Your task to perform on an android device: Open accessibility settings Image 0: 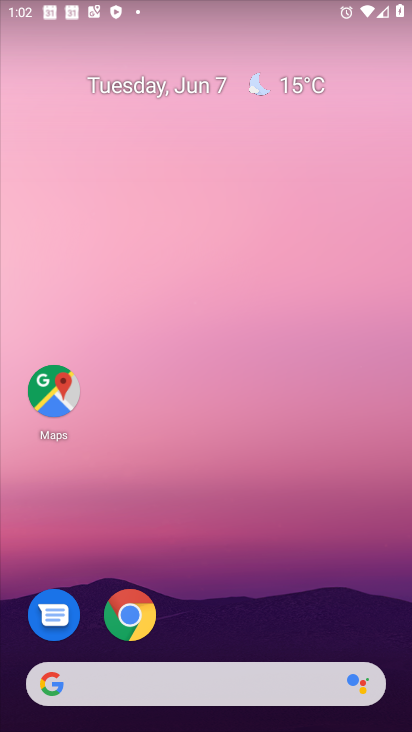
Step 0: drag from (233, 627) to (178, 186)
Your task to perform on an android device: Open accessibility settings Image 1: 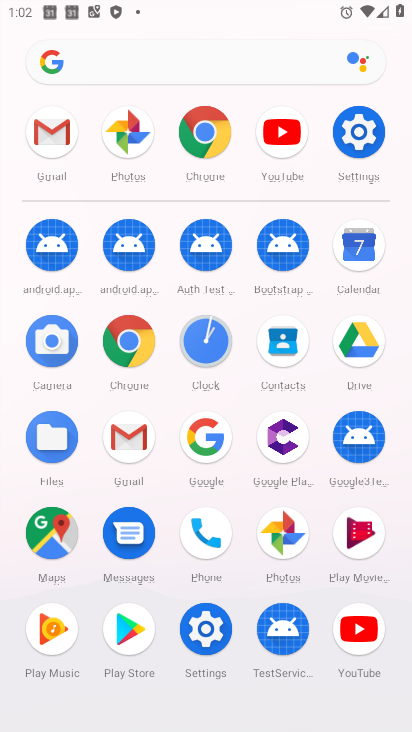
Step 1: click (356, 120)
Your task to perform on an android device: Open accessibility settings Image 2: 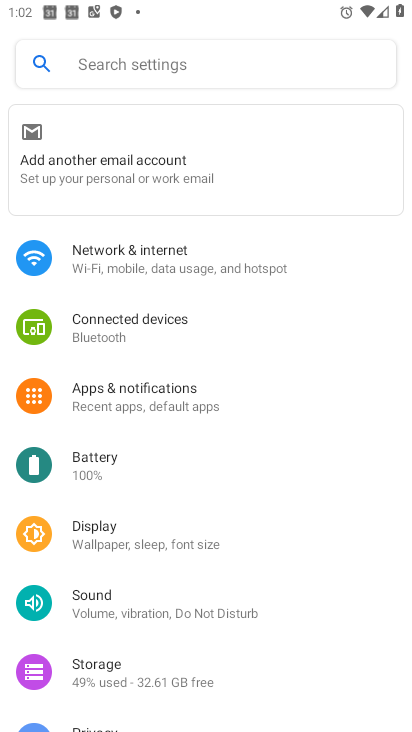
Step 2: drag from (186, 651) to (143, 307)
Your task to perform on an android device: Open accessibility settings Image 3: 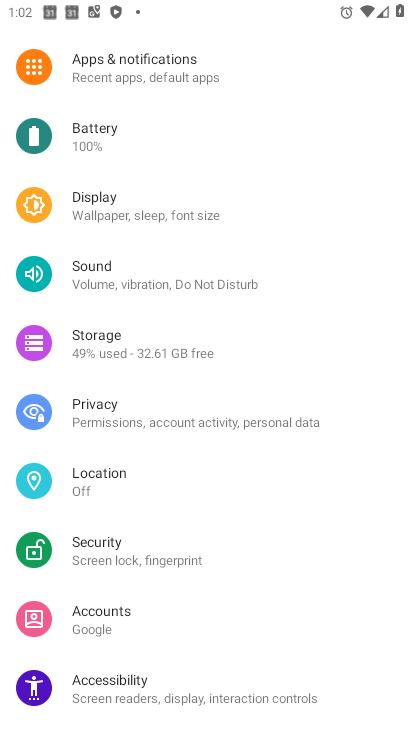
Step 3: click (117, 693)
Your task to perform on an android device: Open accessibility settings Image 4: 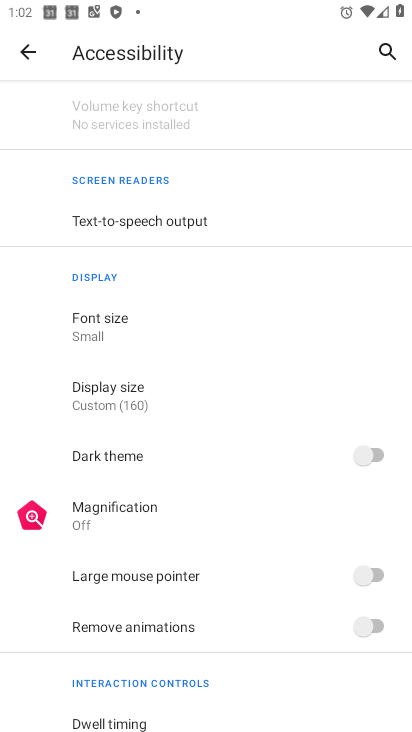
Step 4: task complete